Your task to perform on an android device: Open display settings Image 0: 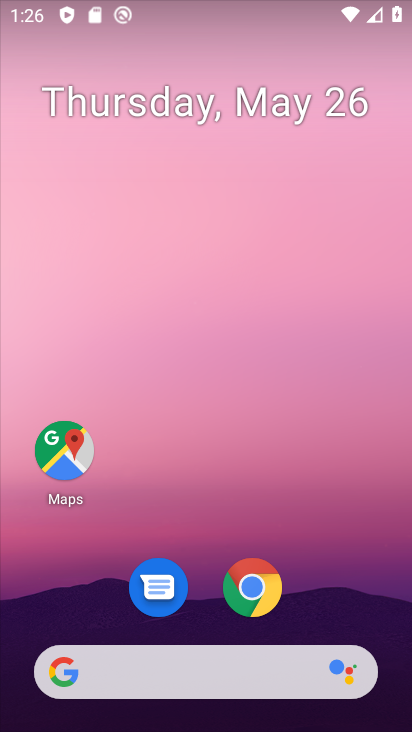
Step 0: drag from (337, 590) to (172, 12)
Your task to perform on an android device: Open display settings Image 1: 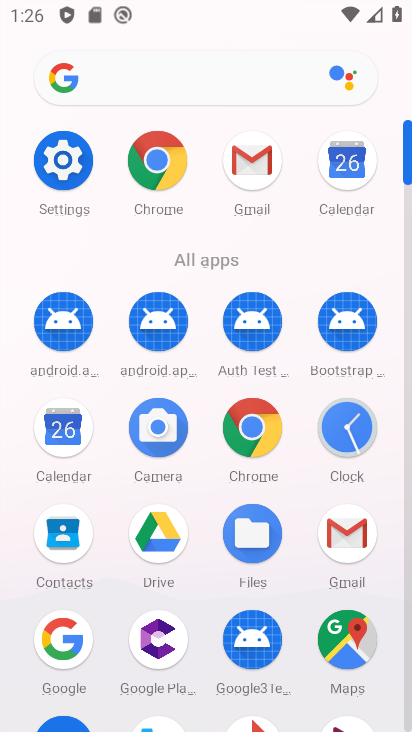
Step 1: drag from (3, 648) to (11, 219)
Your task to perform on an android device: Open display settings Image 2: 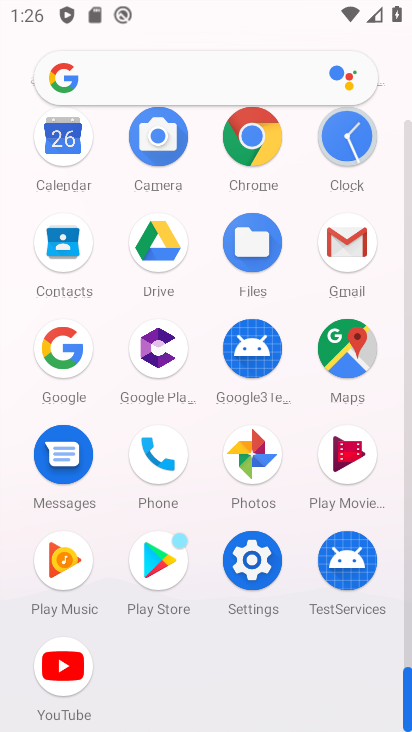
Step 2: click (251, 557)
Your task to perform on an android device: Open display settings Image 3: 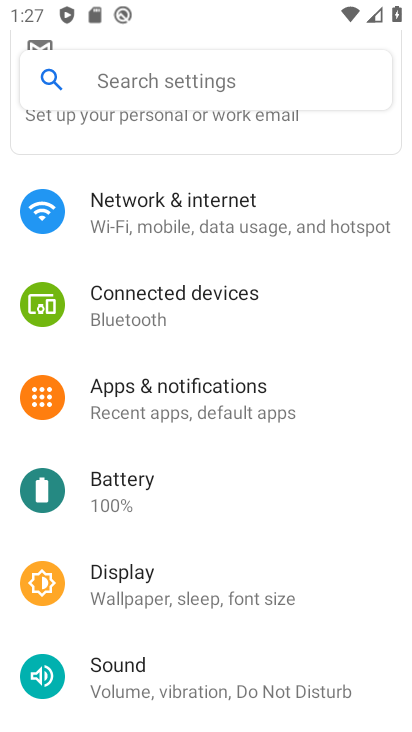
Step 3: drag from (298, 580) to (283, 260)
Your task to perform on an android device: Open display settings Image 4: 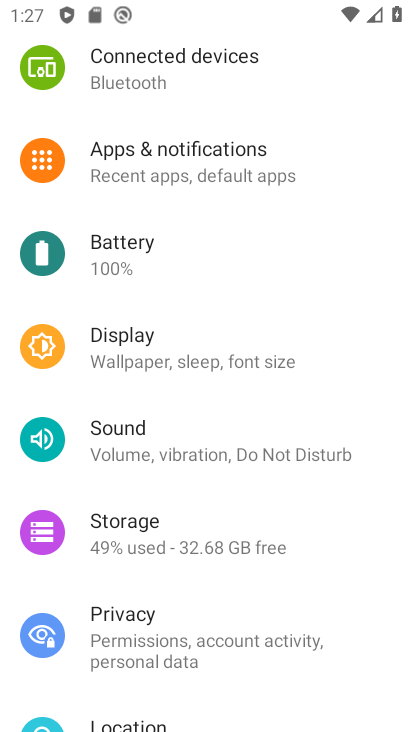
Step 4: click (129, 357)
Your task to perform on an android device: Open display settings Image 5: 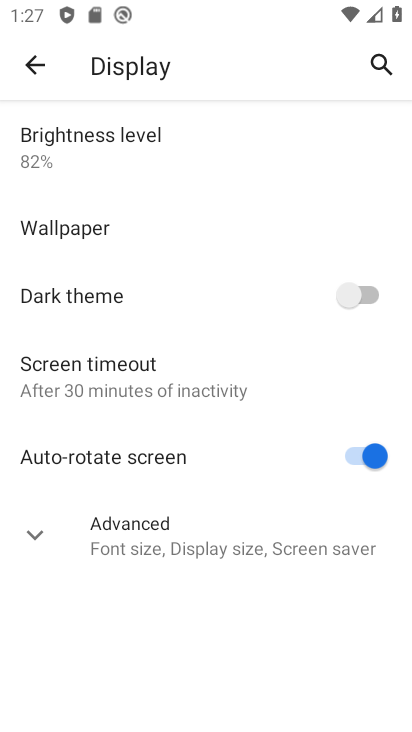
Step 5: click (49, 535)
Your task to perform on an android device: Open display settings Image 6: 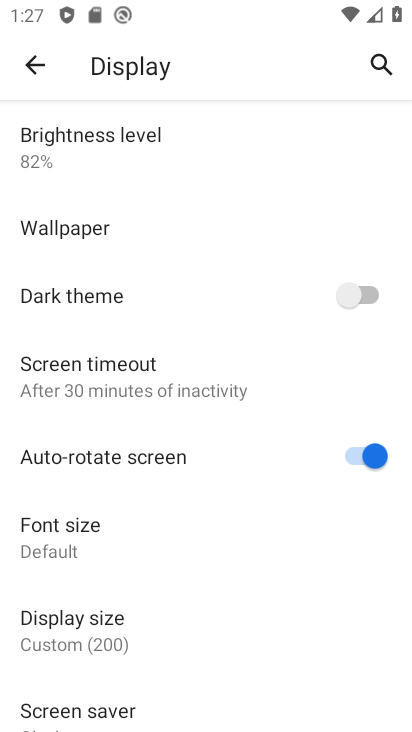
Step 6: task complete